Your task to perform on an android device: Empty the shopping cart on amazon. Add "razer blade" to the cart on amazon, then select checkout. Image 0: 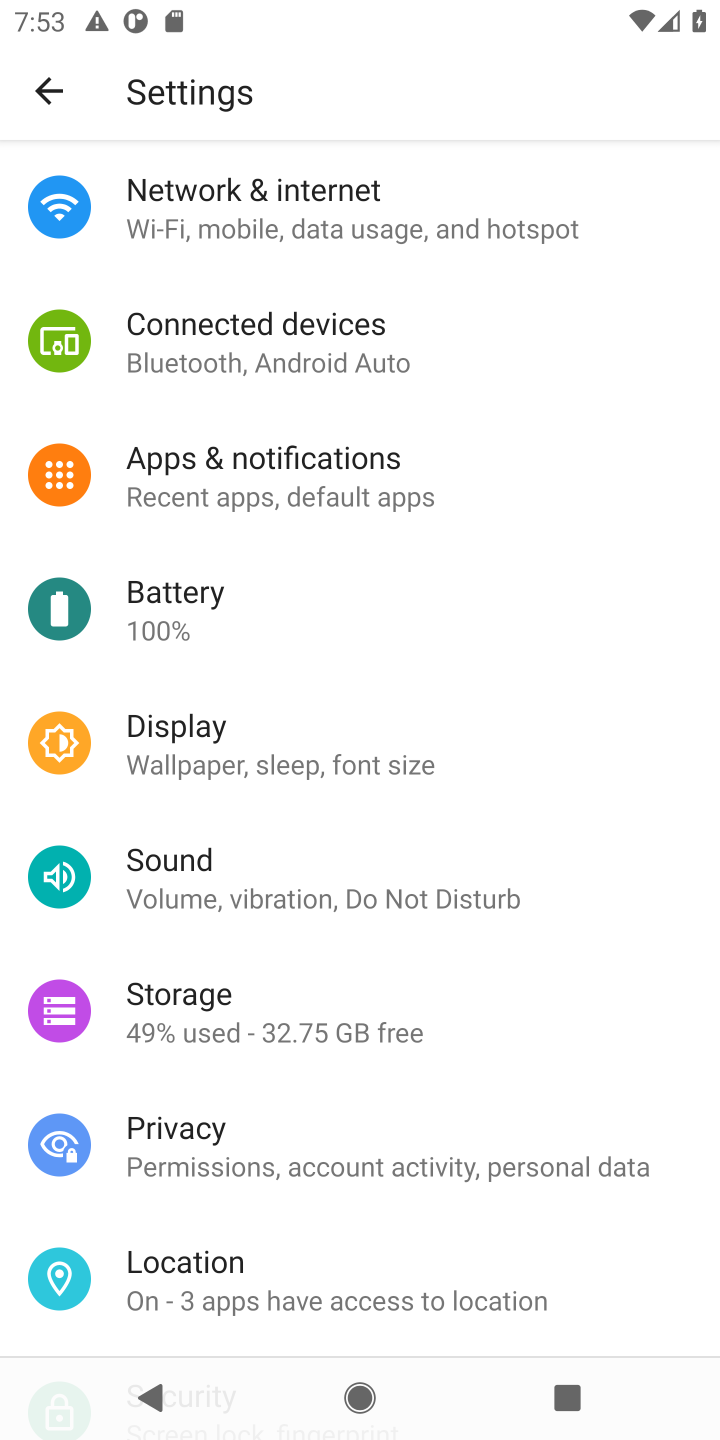
Step 0: press home button
Your task to perform on an android device: Empty the shopping cart on amazon. Add "razer blade" to the cart on amazon, then select checkout. Image 1: 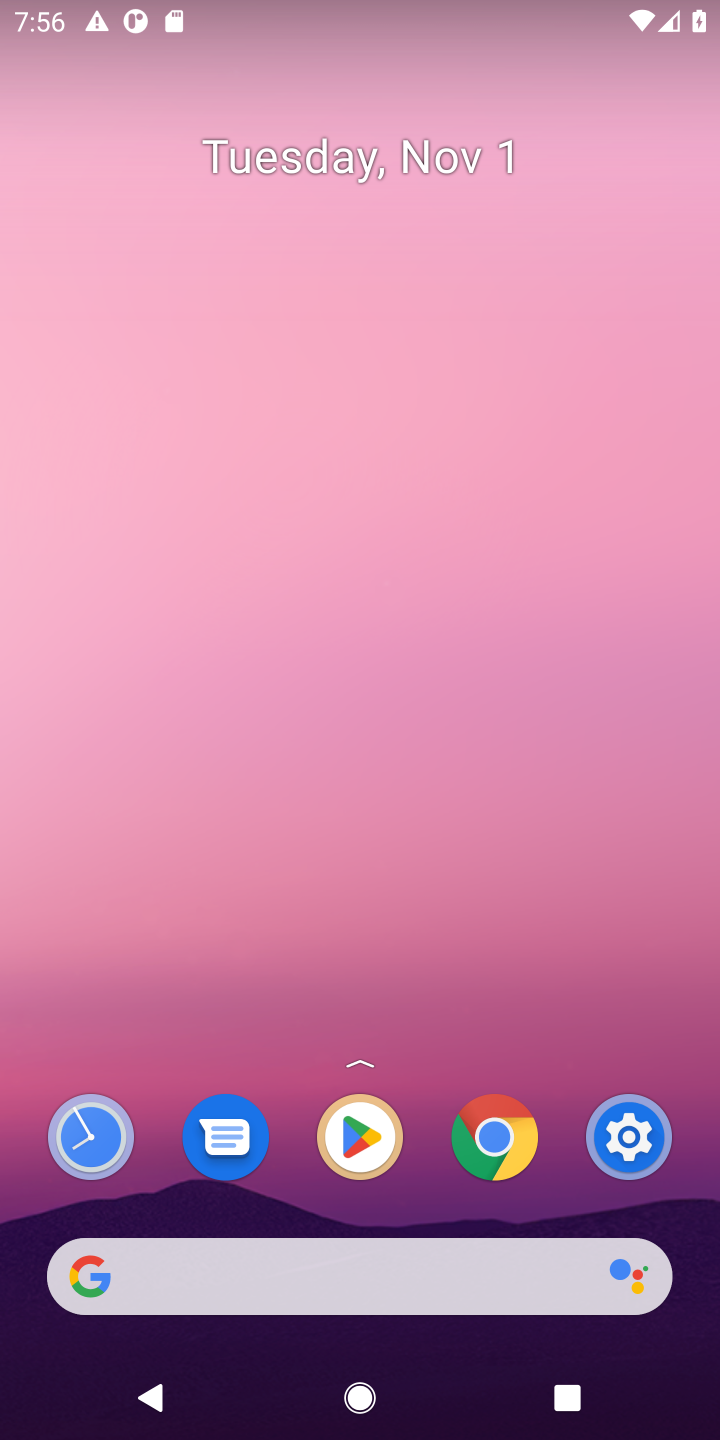
Step 1: click (477, 1291)
Your task to perform on an android device: Empty the shopping cart on amazon. Add "razer blade" to the cart on amazon, then select checkout. Image 2: 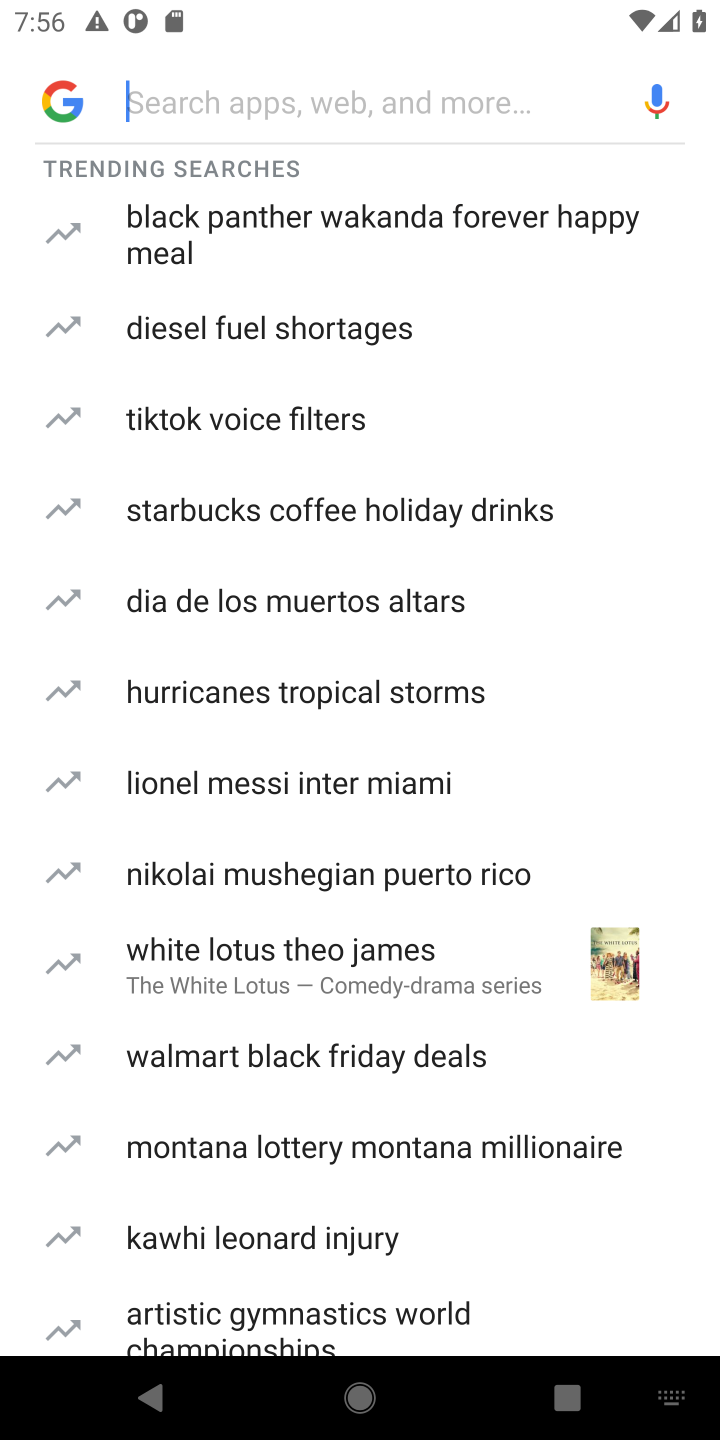
Step 2: type "amazon"
Your task to perform on an android device: Empty the shopping cart on amazon. Add "razer blade" to the cart on amazon, then select checkout. Image 3: 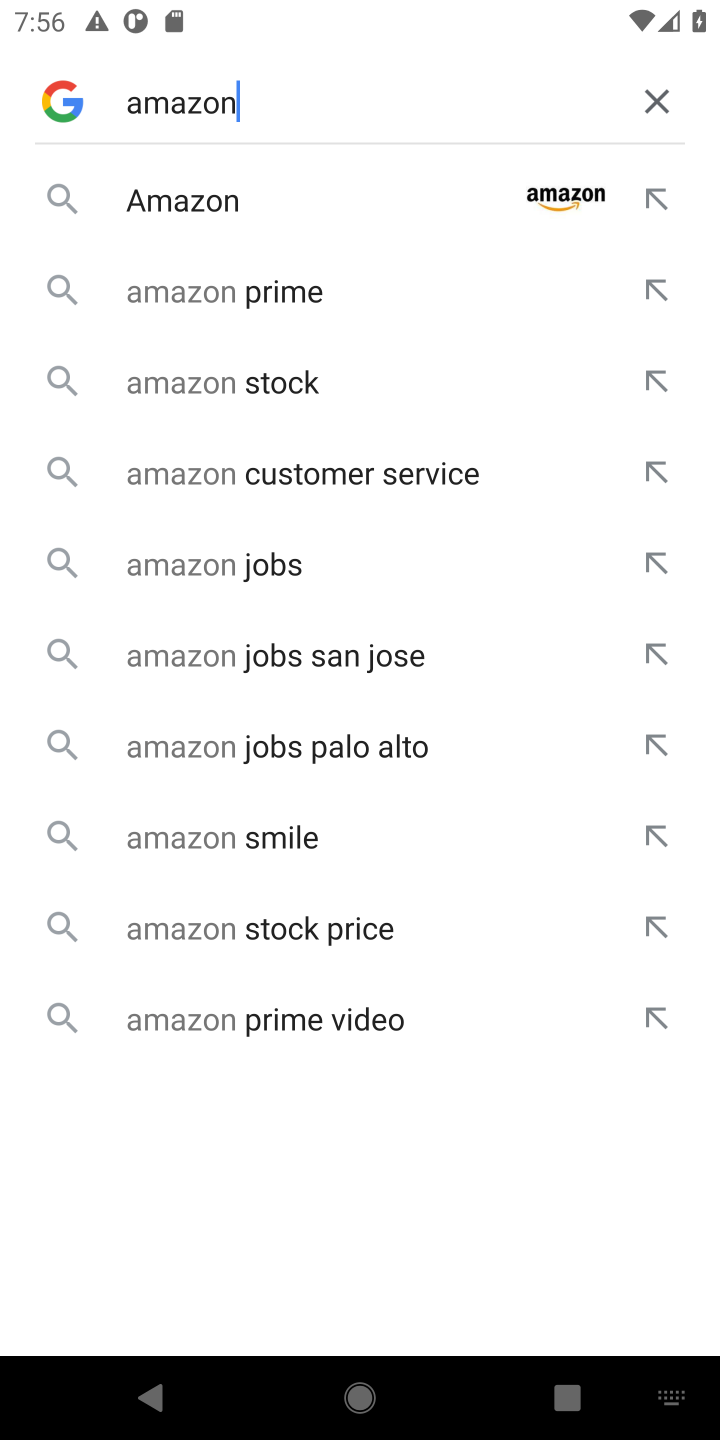
Step 3: click (462, 177)
Your task to perform on an android device: Empty the shopping cart on amazon. Add "razer blade" to the cart on amazon, then select checkout. Image 4: 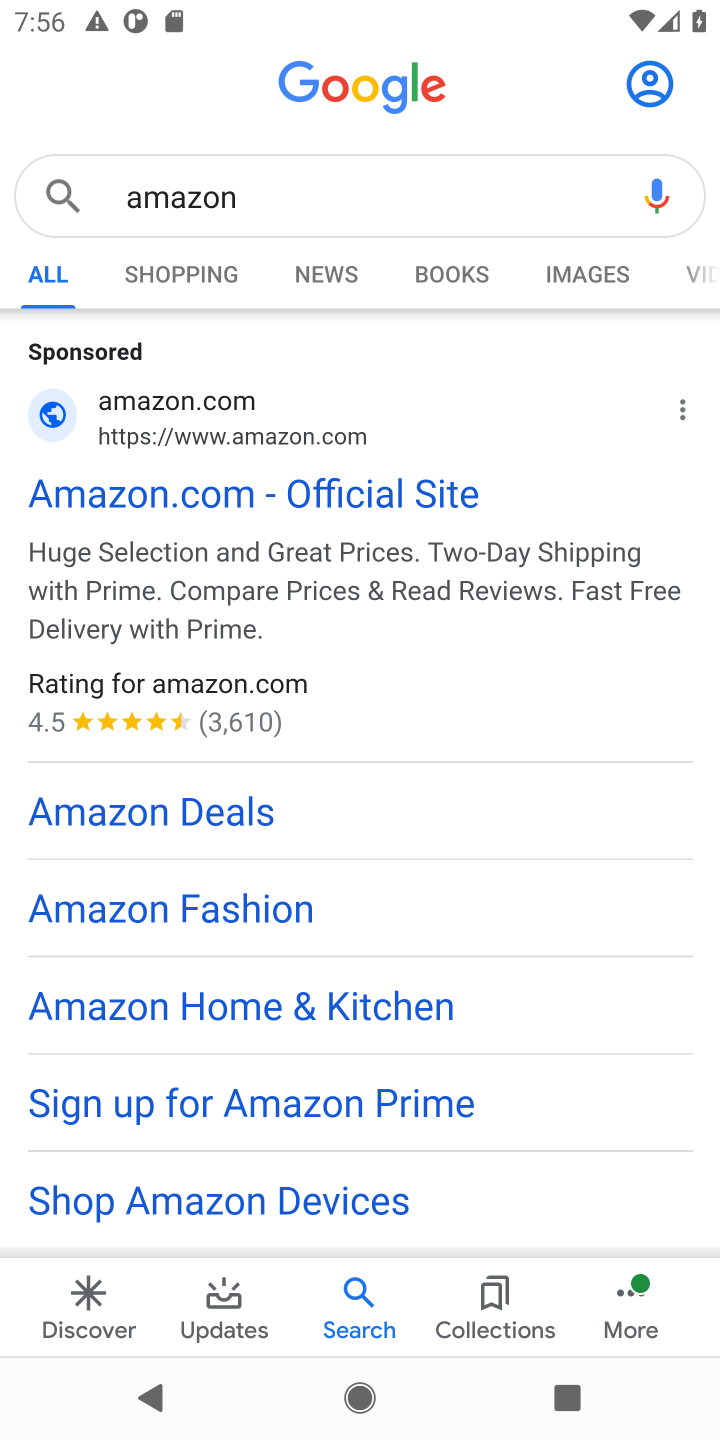
Step 4: click (72, 495)
Your task to perform on an android device: Empty the shopping cart on amazon. Add "razer blade" to the cart on amazon, then select checkout. Image 5: 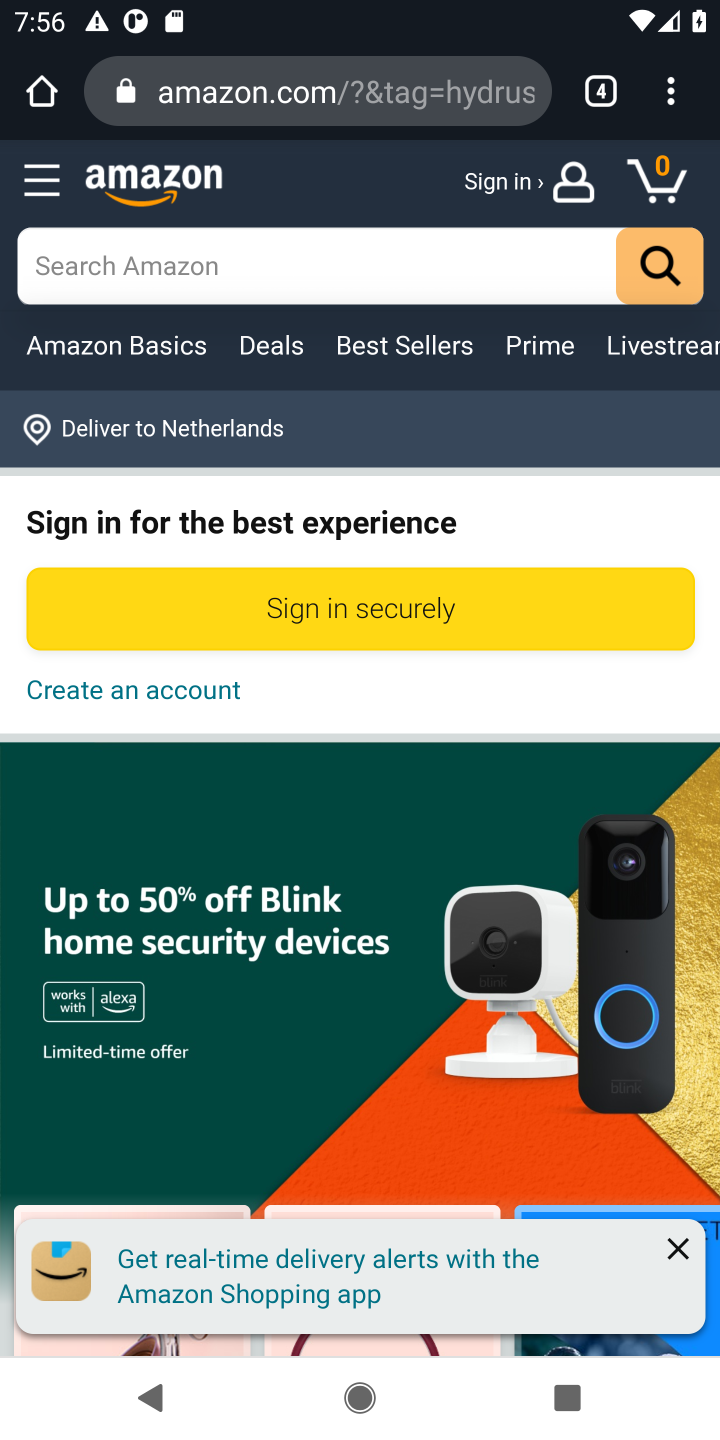
Step 5: click (268, 242)
Your task to perform on an android device: Empty the shopping cart on amazon. Add "razer blade" to the cart on amazon, then select checkout. Image 6: 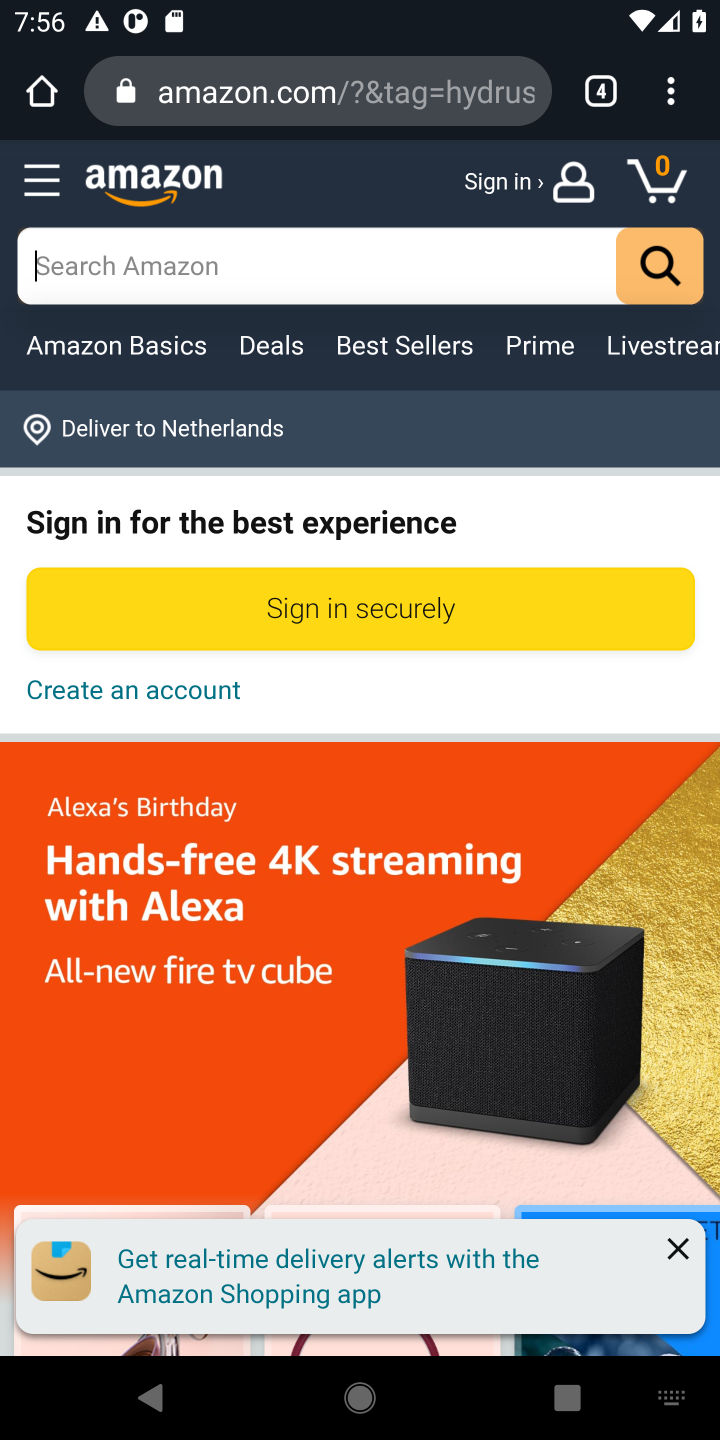
Step 6: type "razer blade"
Your task to perform on an android device: Empty the shopping cart on amazon. Add "razer blade" to the cart on amazon, then select checkout. Image 7: 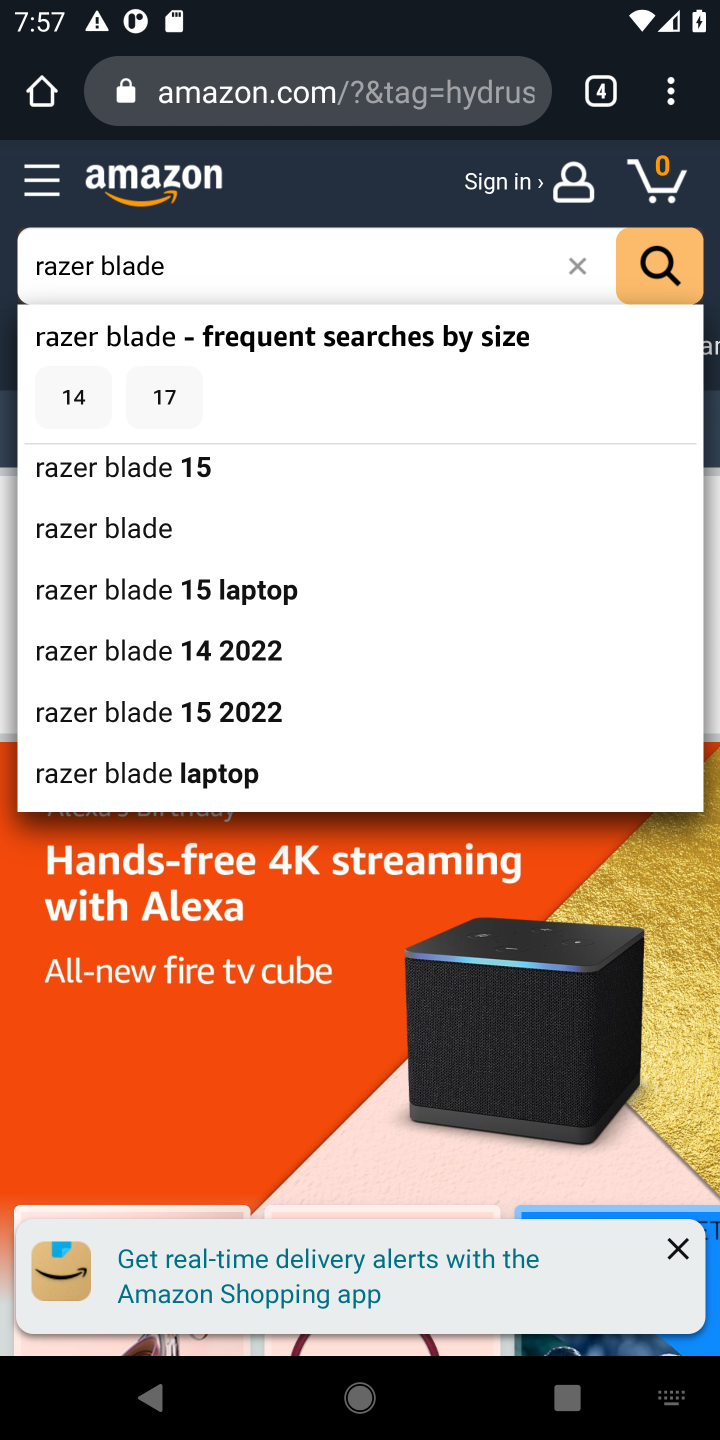
Step 7: click (97, 529)
Your task to perform on an android device: Empty the shopping cart on amazon. Add "razer blade" to the cart on amazon, then select checkout. Image 8: 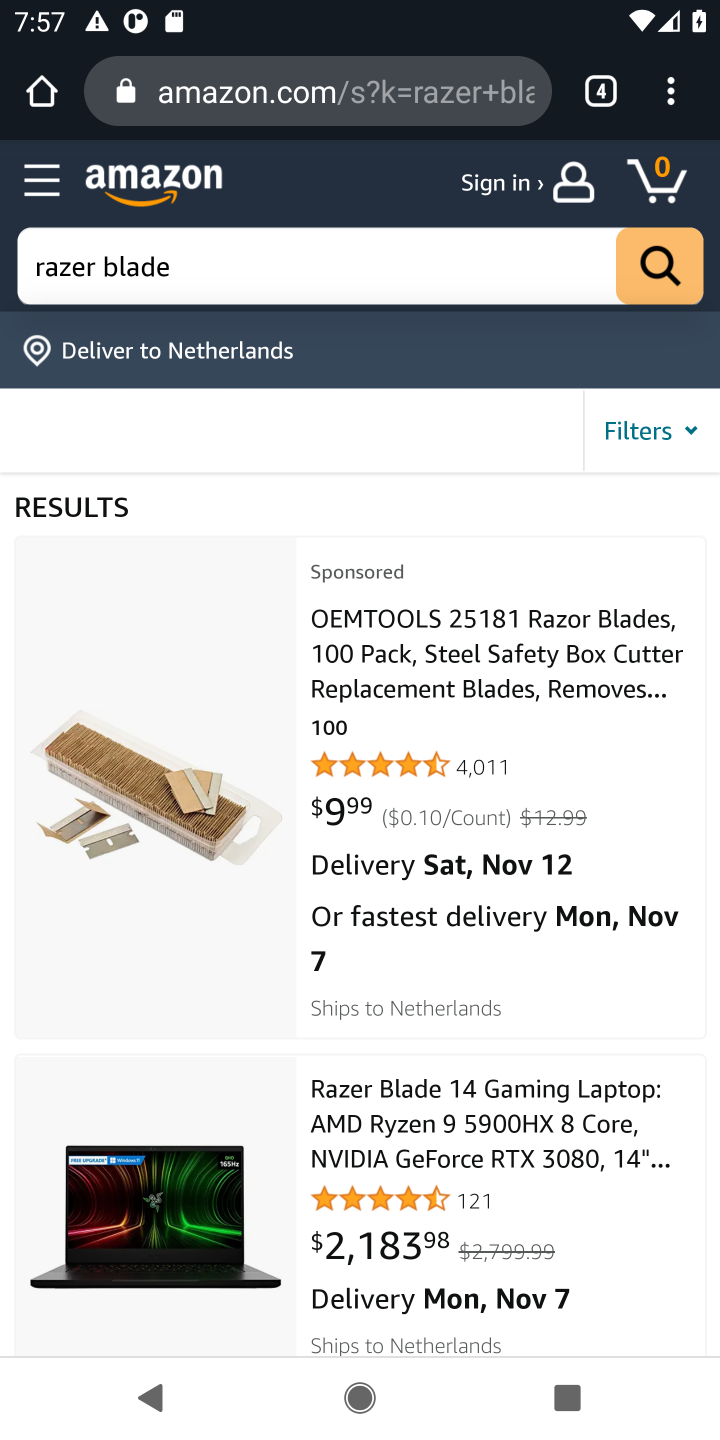
Step 8: click (504, 669)
Your task to perform on an android device: Empty the shopping cart on amazon. Add "razer blade" to the cart on amazon, then select checkout. Image 9: 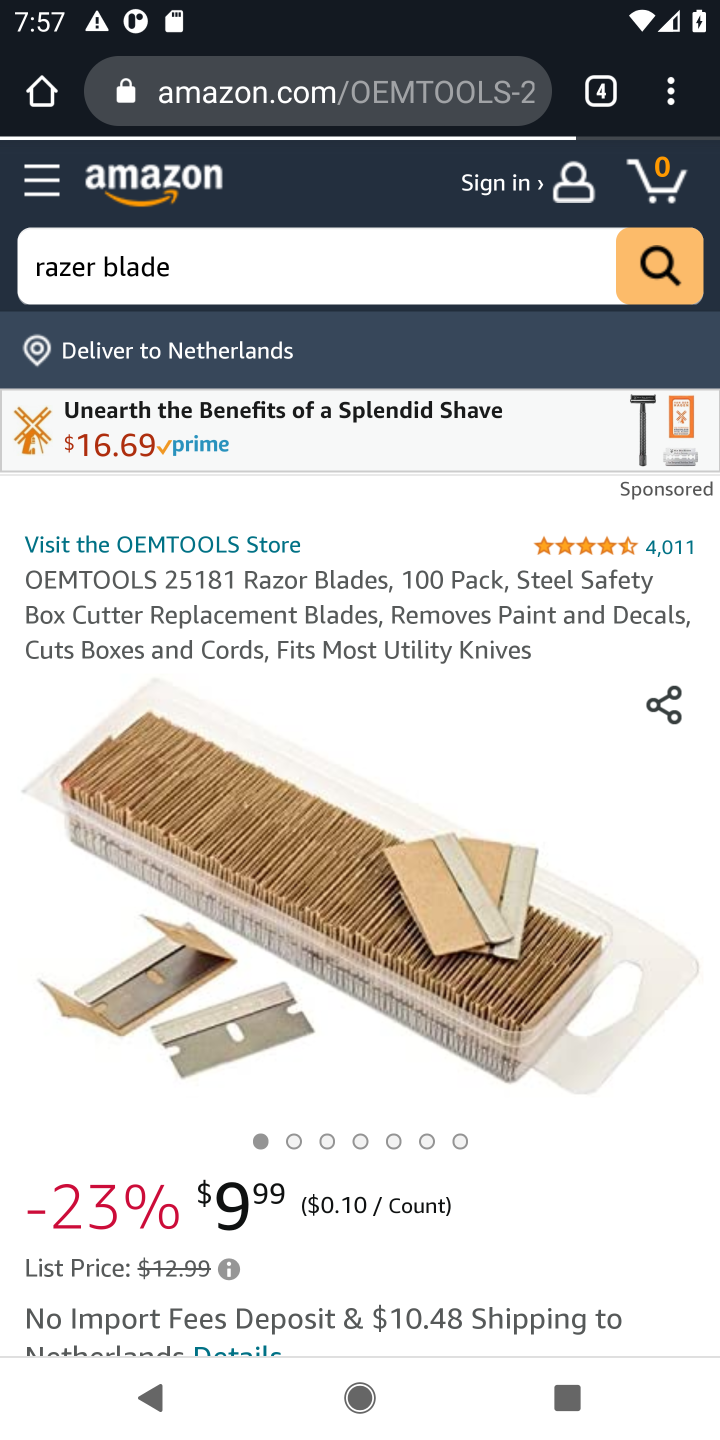
Step 9: drag from (413, 943) to (469, 677)
Your task to perform on an android device: Empty the shopping cart on amazon. Add "razer blade" to the cart on amazon, then select checkout. Image 10: 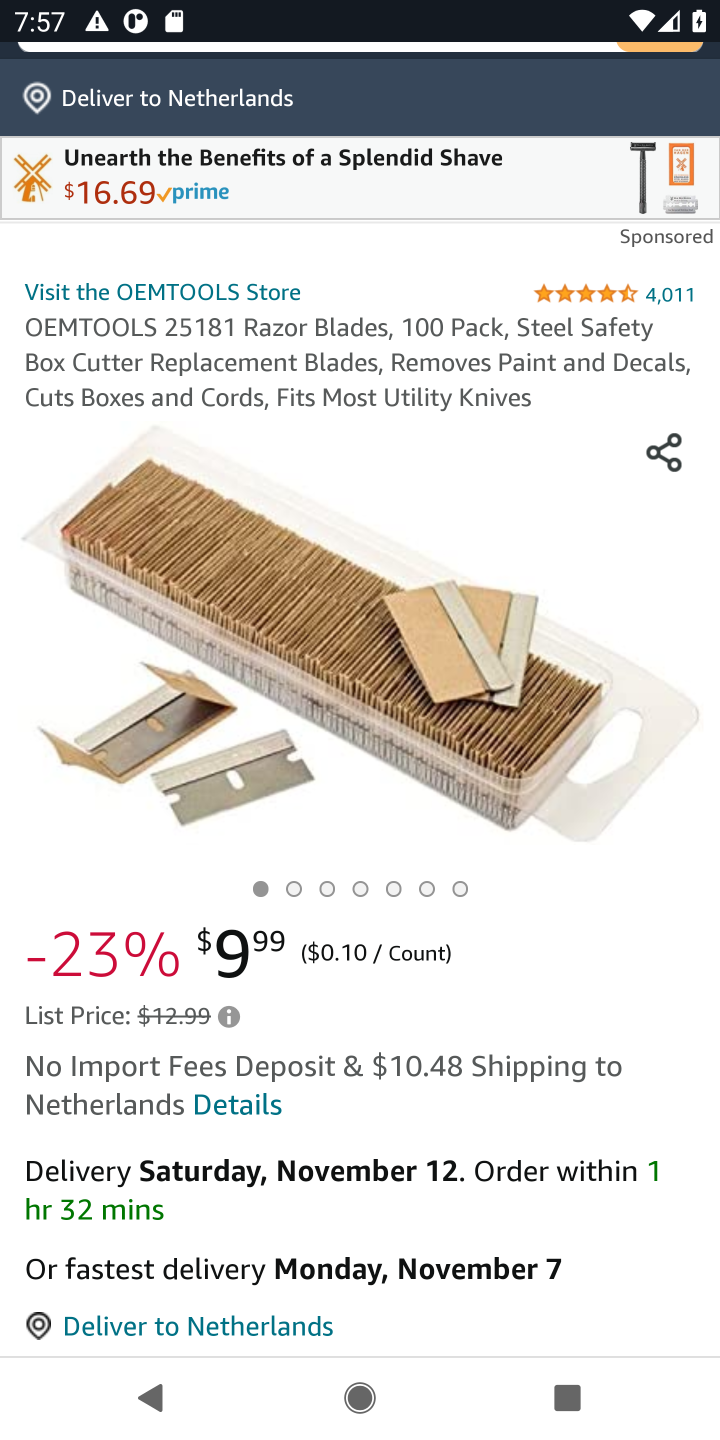
Step 10: drag from (335, 981) to (372, 798)
Your task to perform on an android device: Empty the shopping cart on amazon. Add "razer blade" to the cart on amazon, then select checkout. Image 11: 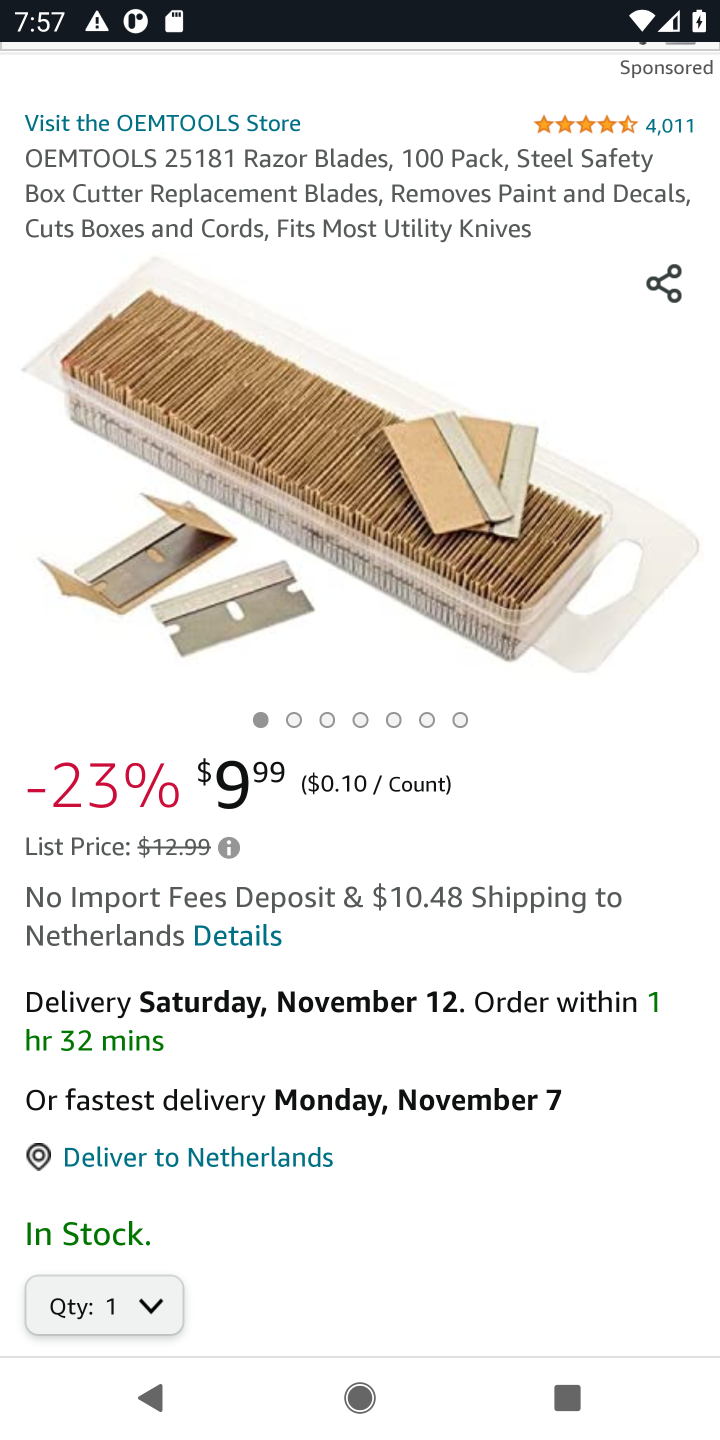
Step 11: drag from (441, 1127) to (524, 579)
Your task to perform on an android device: Empty the shopping cart on amazon. Add "razer blade" to the cart on amazon, then select checkout. Image 12: 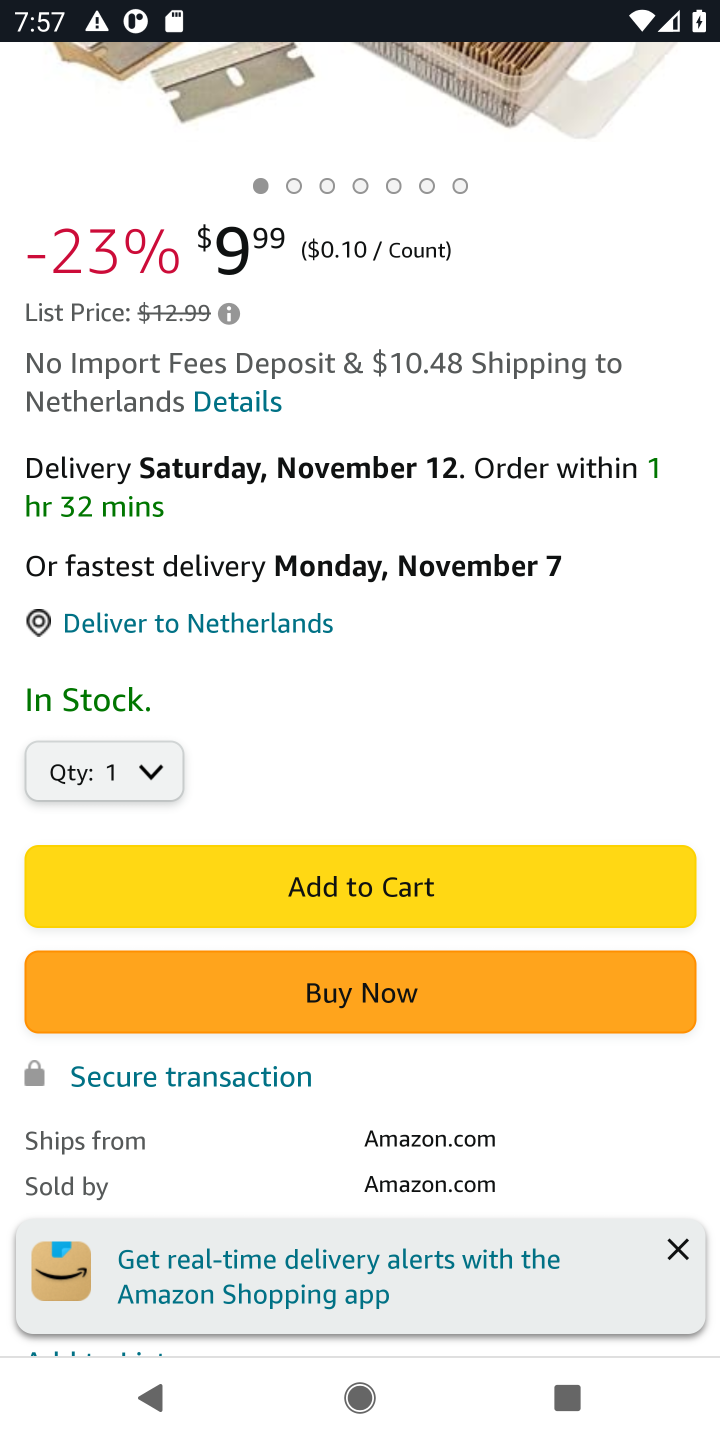
Step 12: click (380, 884)
Your task to perform on an android device: Empty the shopping cart on amazon. Add "razer blade" to the cart on amazon, then select checkout. Image 13: 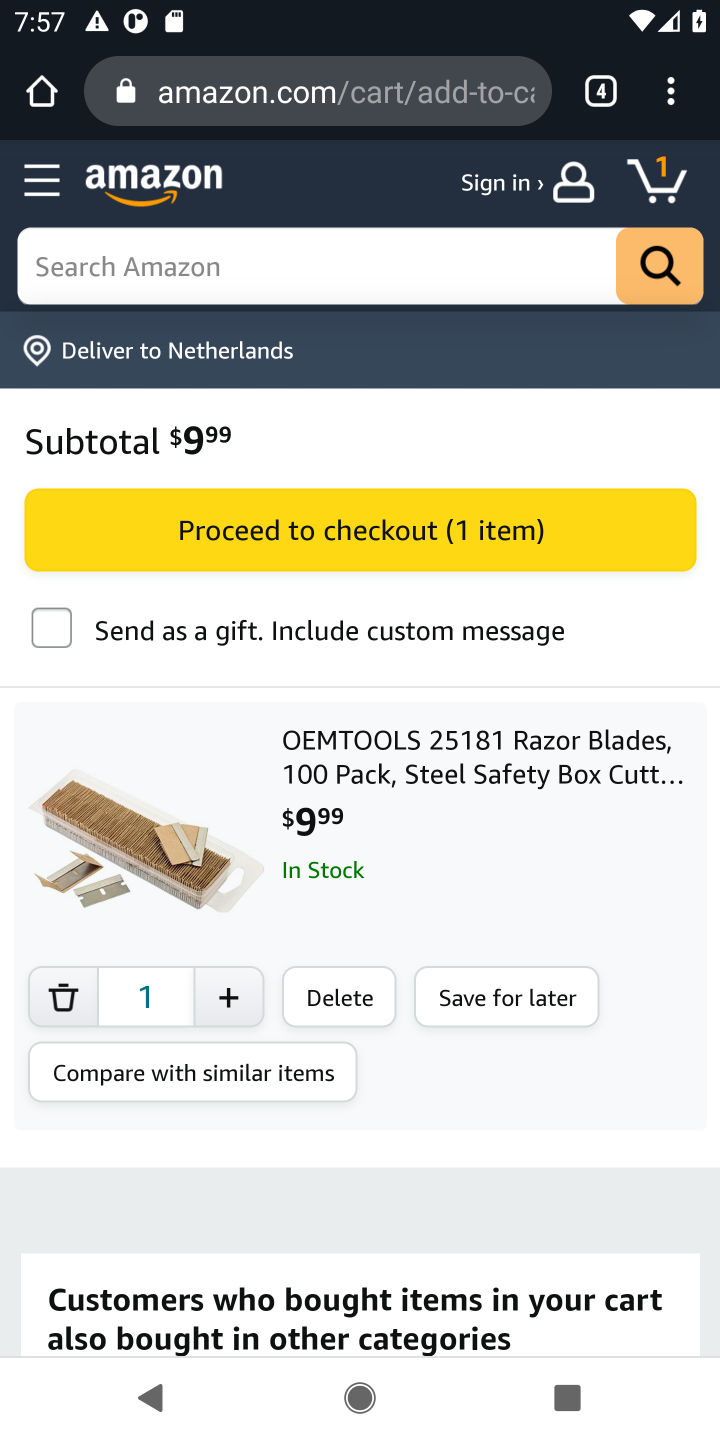
Step 13: click (344, 524)
Your task to perform on an android device: Empty the shopping cart on amazon. Add "razer blade" to the cart on amazon, then select checkout. Image 14: 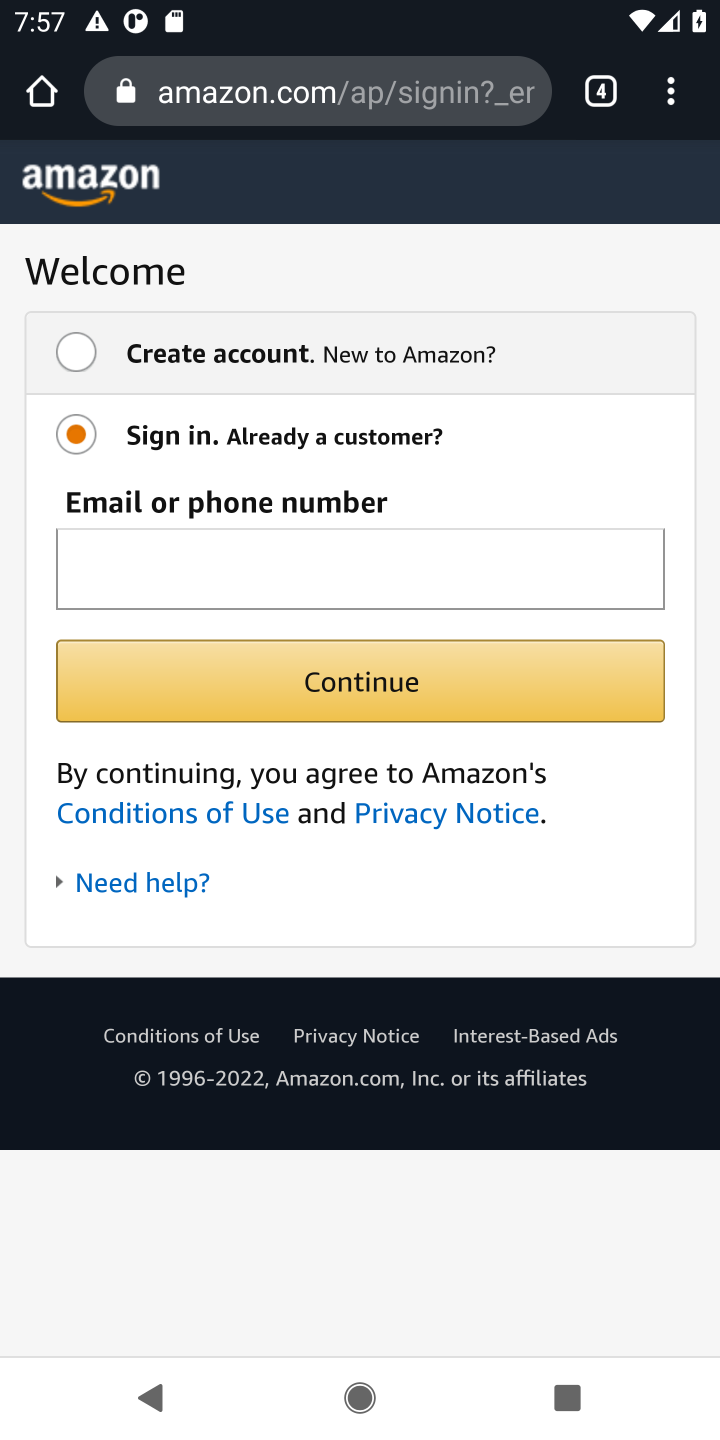
Step 14: task complete